Your task to perform on an android device: Search for seafood restaurants on Google Maps Image 0: 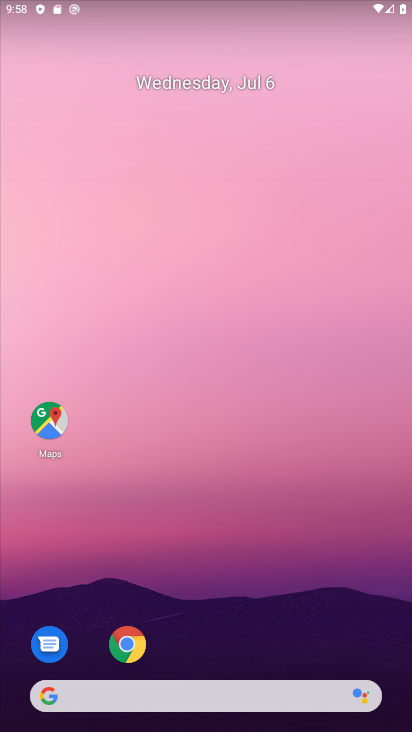
Step 0: click (237, 352)
Your task to perform on an android device: Search for seafood restaurants on Google Maps Image 1: 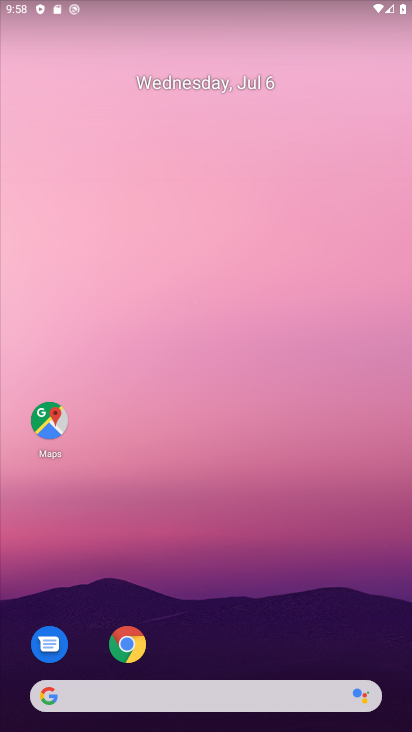
Step 1: drag from (250, 474) to (182, 242)
Your task to perform on an android device: Search for seafood restaurants on Google Maps Image 2: 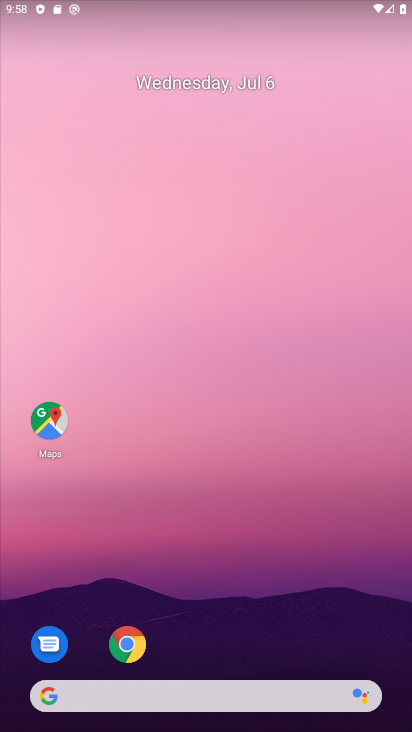
Step 2: click (159, 117)
Your task to perform on an android device: Search for seafood restaurants on Google Maps Image 3: 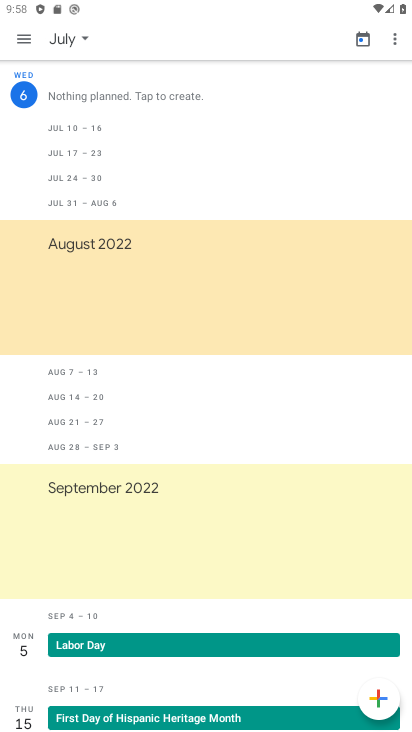
Step 3: press back button
Your task to perform on an android device: Search for seafood restaurants on Google Maps Image 4: 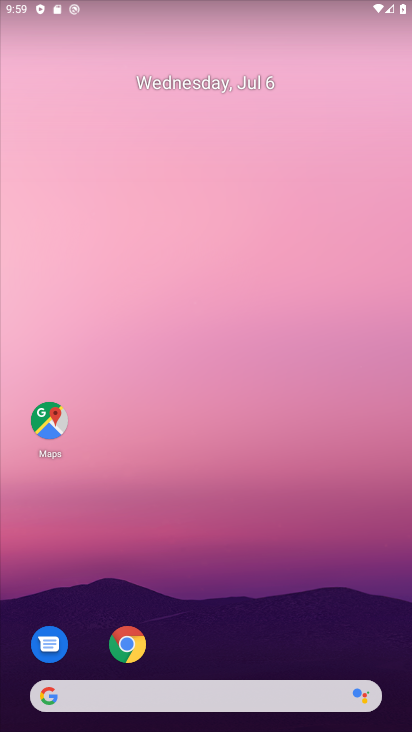
Step 4: click (208, 167)
Your task to perform on an android device: Search for seafood restaurants on Google Maps Image 5: 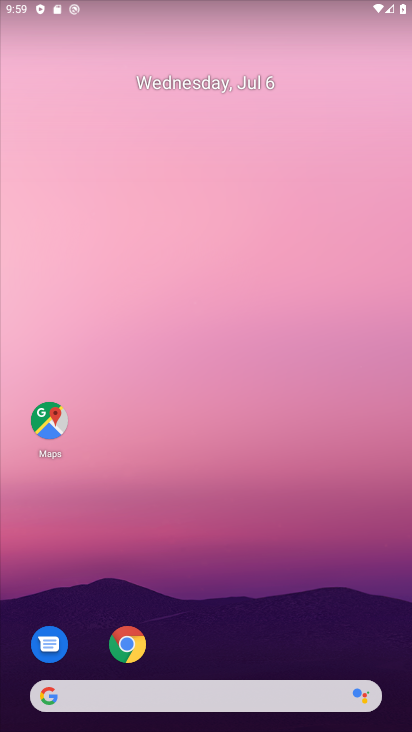
Step 5: click (169, 88)
Your task to perform on an android device: Search for seafood restaurants on Google Maps Image 6: 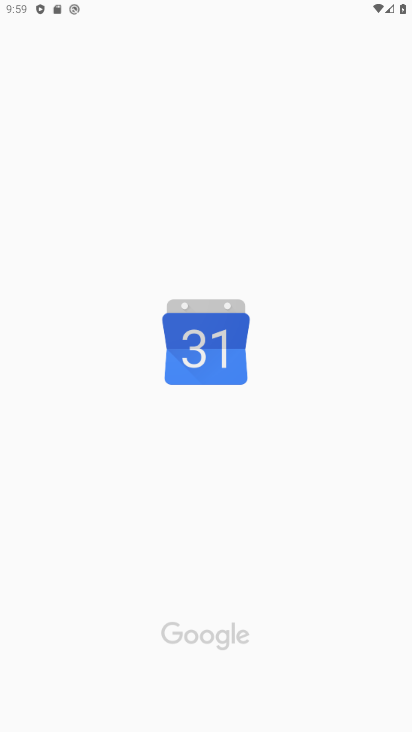
Step 6: drag from (198, 549) to (97, 139)
Your task to perform on an android device: Search for seafood restaurants on Google Maps Image 7: 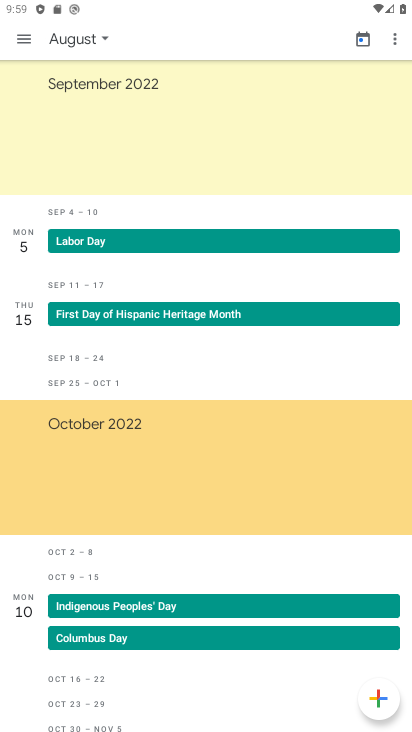
Step 7: press back button
Your task to perform on an android device: Search for seafood restaurants on Google Maps Image 8: 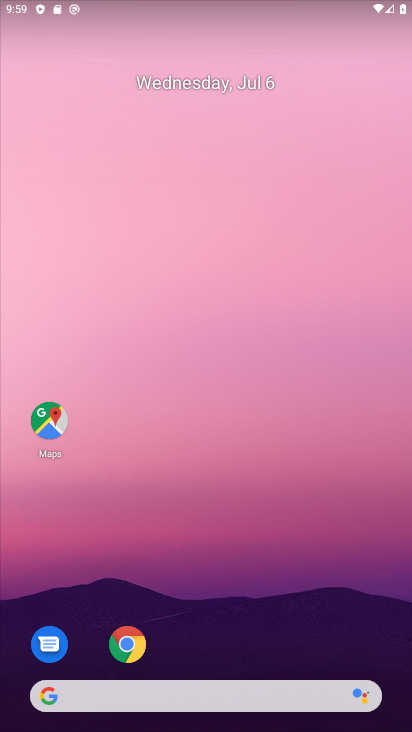
Step 8: click (191, 157)
Your task to perform on an android device: Search for seafood restaurants on Google Maps Image 9: 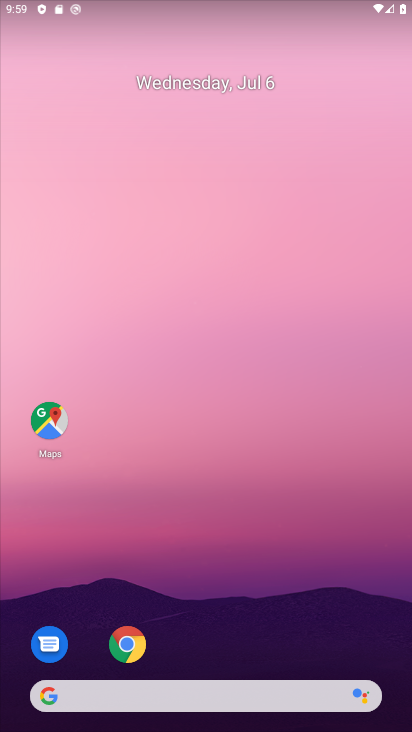
Step 9: drag from (219, 451) to (109, 41)
Your task to perform on an android device: Search for seafood restaurants on Google Maps Image 10: 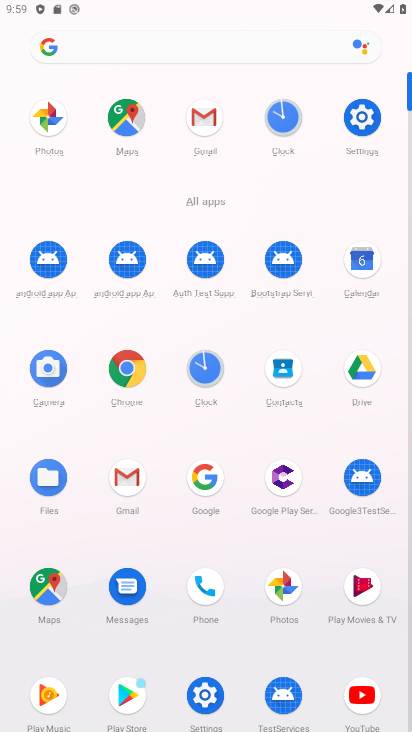
Step 10: click (59, 577)
Your task to perform on an android device: Search for seafood restaurants on Google Maps Image 11: 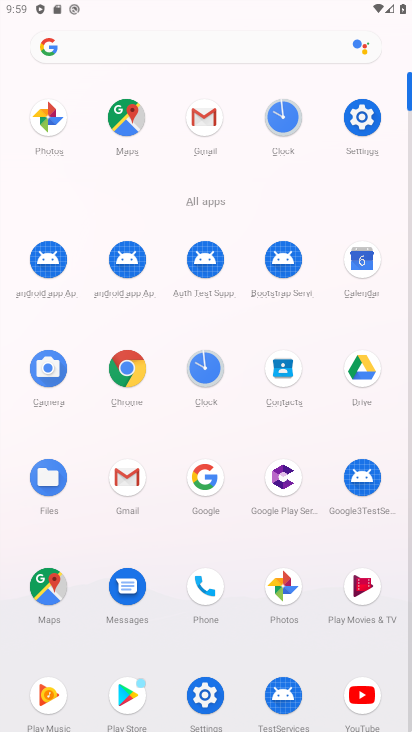
Step 11: click (58, 577)
Your task to perform on an android device: Search for seafood restaurants on Google Maps Image 12: 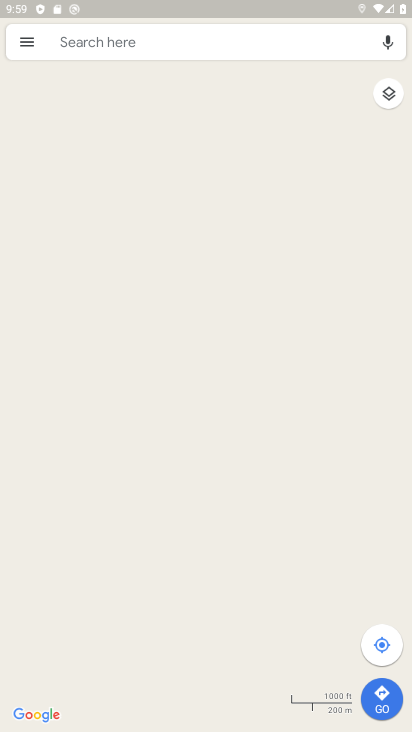
Step 12: click (207, 353)
Your task to perform on an android device: Search for seafood restaurants on Google Maps Image 13: 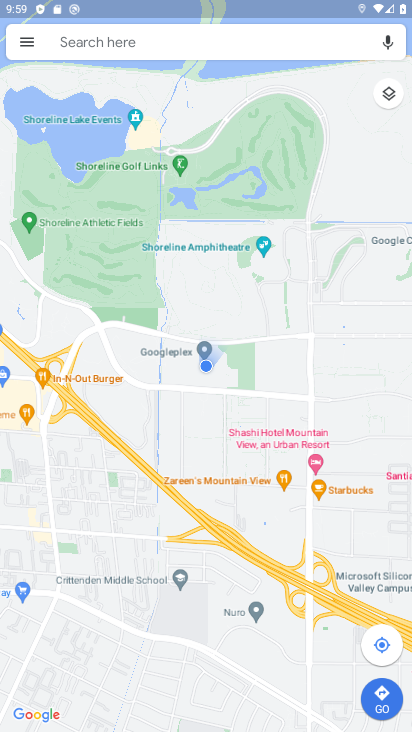
Step 13: click (108, 46)
Your task to perform on an android device: Search for seafood restaurants on Google Maps Image 14: 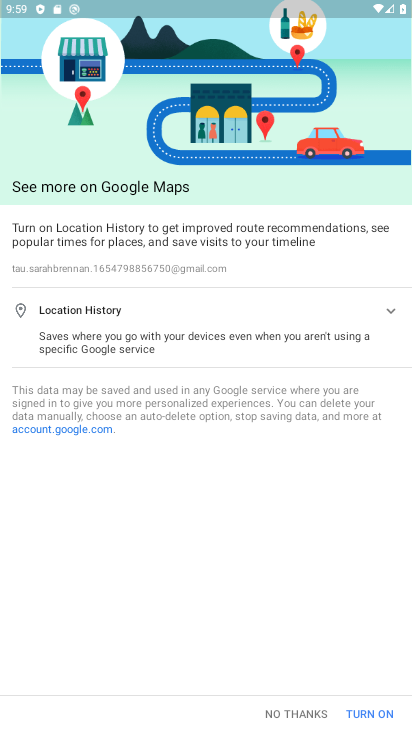
Step 14: click (309, 706)
Your task to perform on an android device: Search for seafood restaurants on Google Maps Image 15: 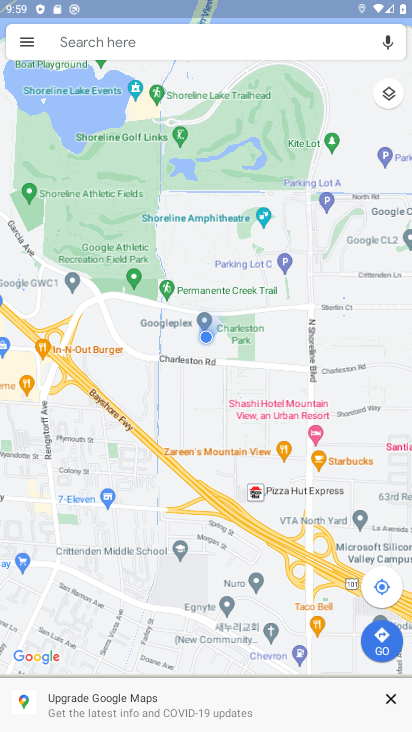
Step 15: click (109, 40)
Your task to perform on an android device: Search for seafood restaurants on Google Maps Image 16: 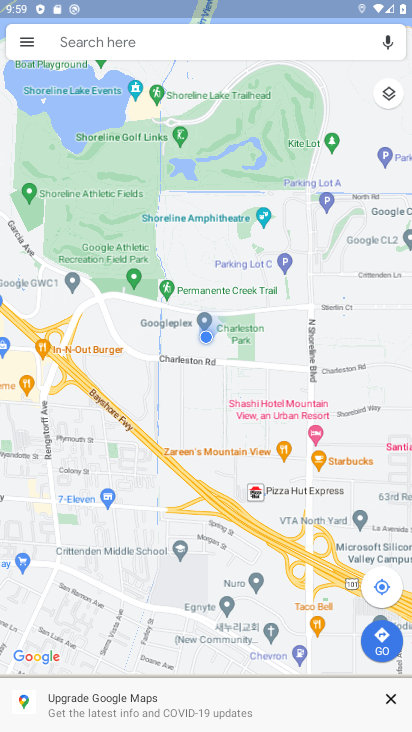
Step 16: click (90, 35)
Your task to perform on an android device: Search for seafood restaurants on Google Maps Image 17: 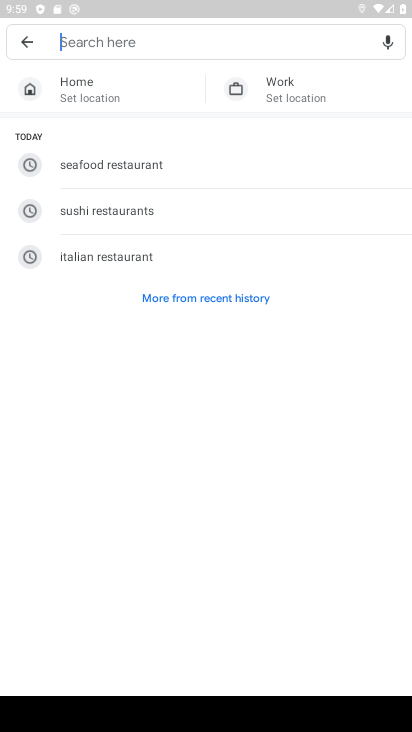
Step 17: click (103, 170)
Your task to perform on an android device: Search for seafood restaurants on Google Maps Image 18: 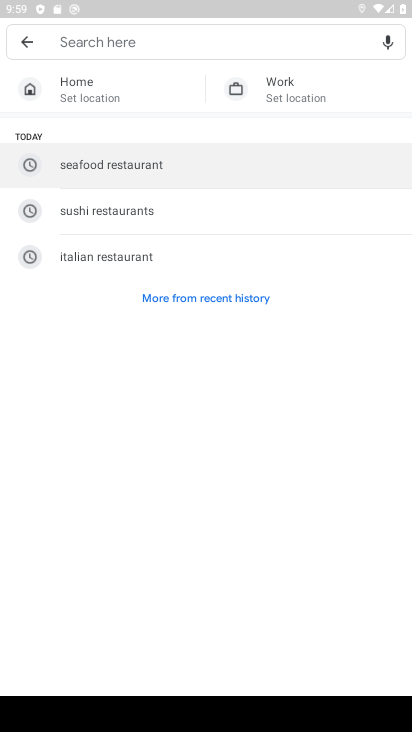
Step 18: click (102, 169)
Your task to perform on an android device: Search for seafood restaurants on Google Maps Image 19: 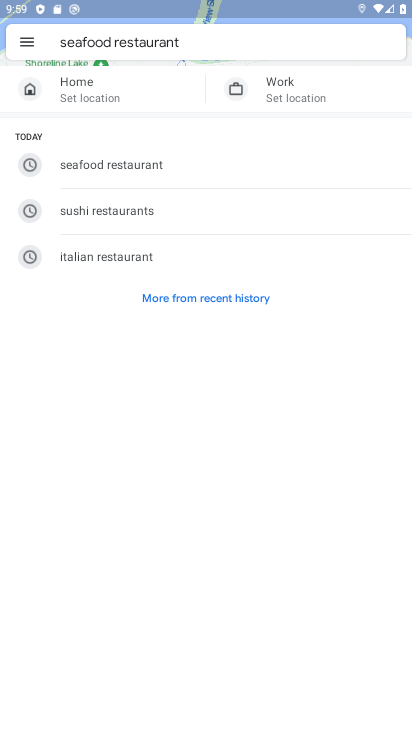
Step 19: click (102, 169)
Your task to perform on an android device: Search for seafood restaurants on Google Maps Image 20: 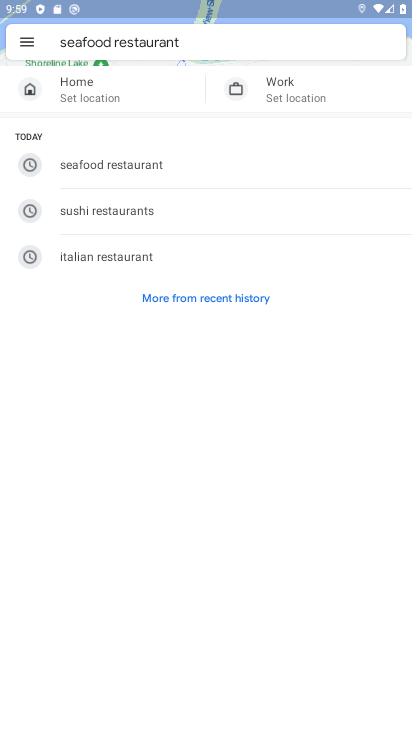
Step 20: click (102, 168)
Your task to perform on an android device: Search for seafood restaurants on Google Maps Image 21: 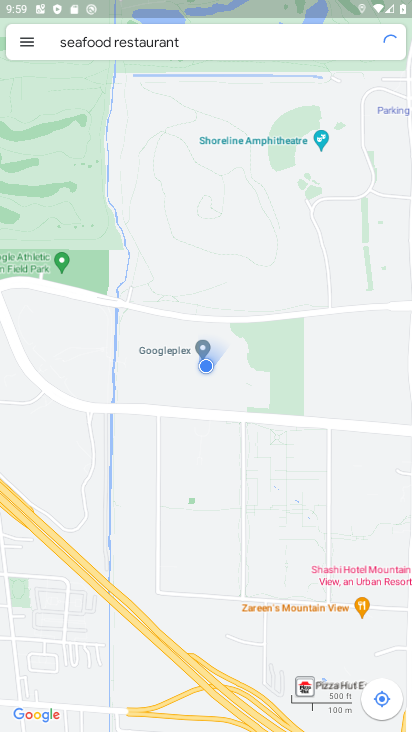
Step 21: task complete